Your task to perform on an android device: Go to sound settings Image 0: 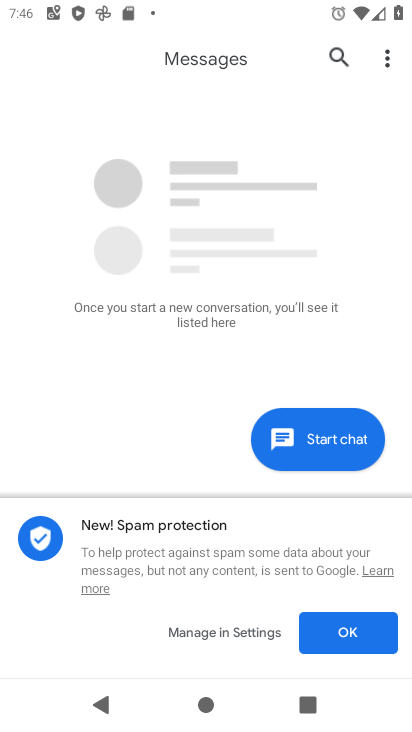
Step 0: press home button
Your task to perform on an android device: Go to sound settings Image 1: 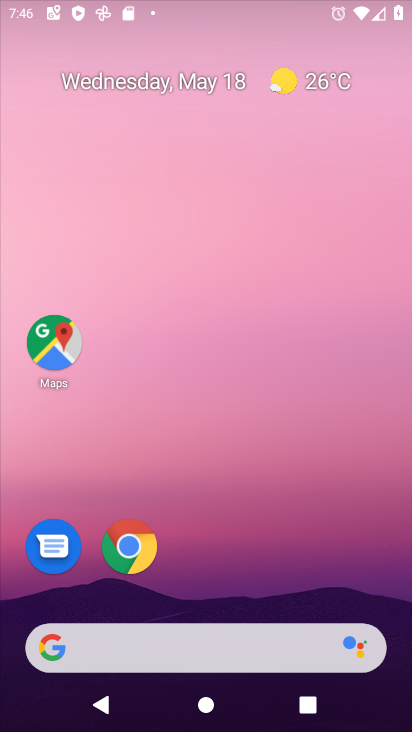
Step 1: drag from (393, 632) to (329, 17)
Your task to perform on an android device: Go to sound settings Image 2: 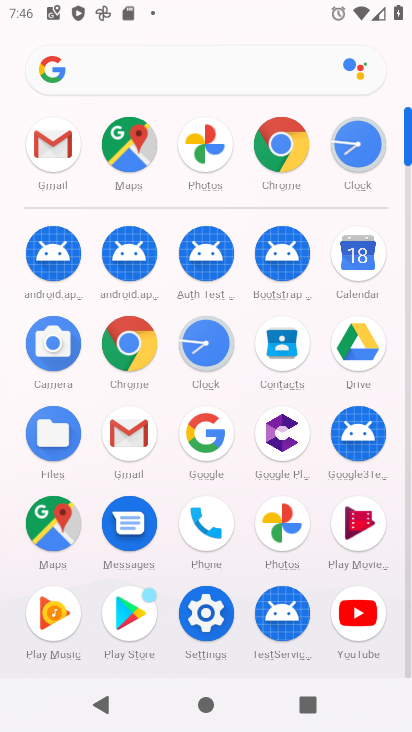
Step 2: click (214, 619)
Your task to perform on an android device: Go to sound settings Image 3: 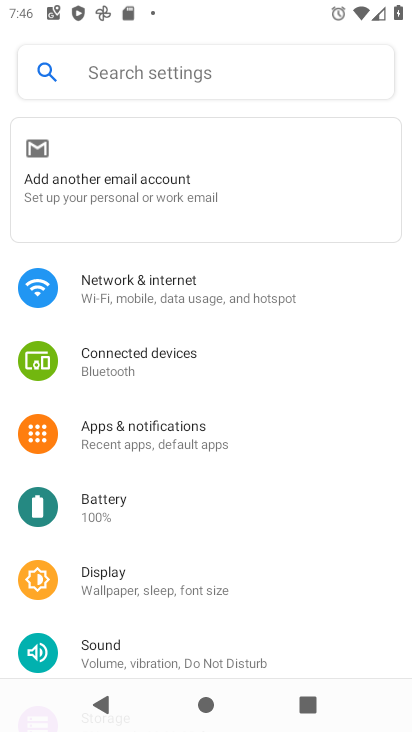
Step 3: drag from (160, 618) to (212, 281)
Your task to perform on an android device: Go to sound settings Image 4: 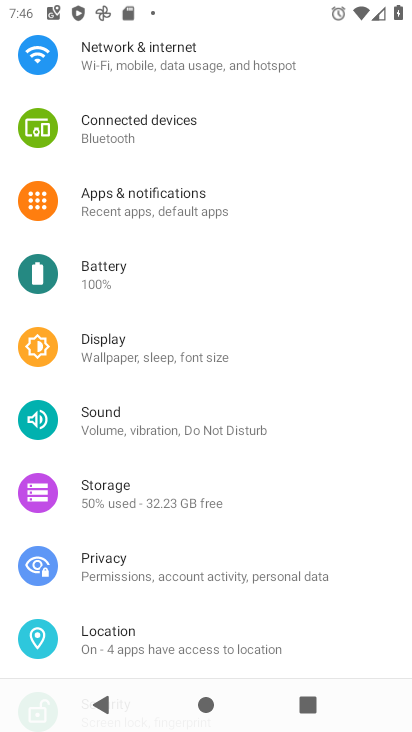
Step 4: click (82, 402)
Your task to perform on an android device: Go to sound settings Image 5: 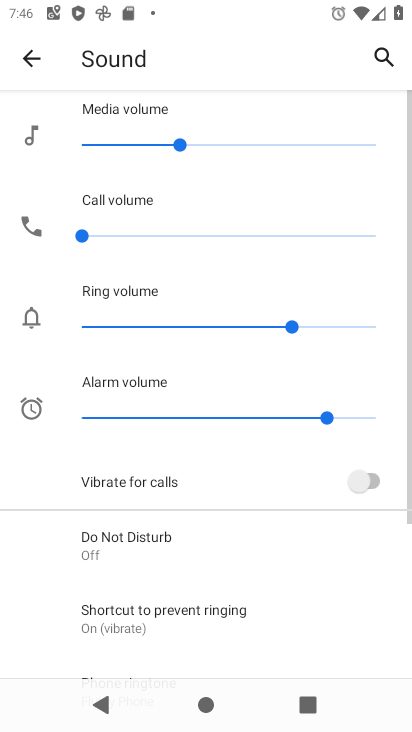
Step 5: task complete